Your task to perform on an android device: turn on showing notifications on the lock screen Image 0: 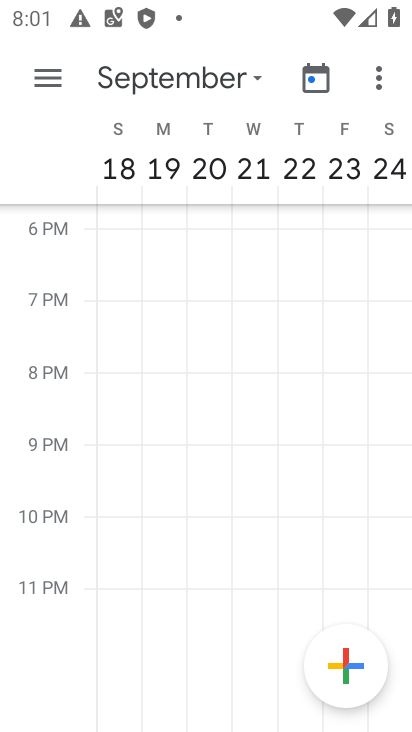
Step 0: press home button
Your task to perform on an android device: turn on showing notifications on the lock screen Image 1: 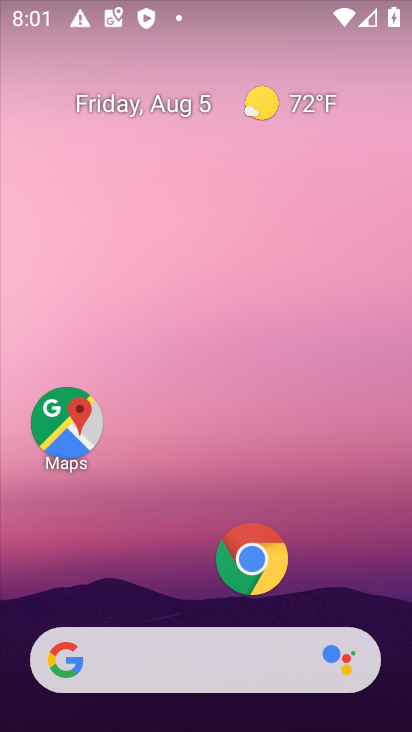
Step 1: drag from (148, 581) to (185, 378)
Your task to perform on an android device: turn on showing notifications on the lock screen Image 2: 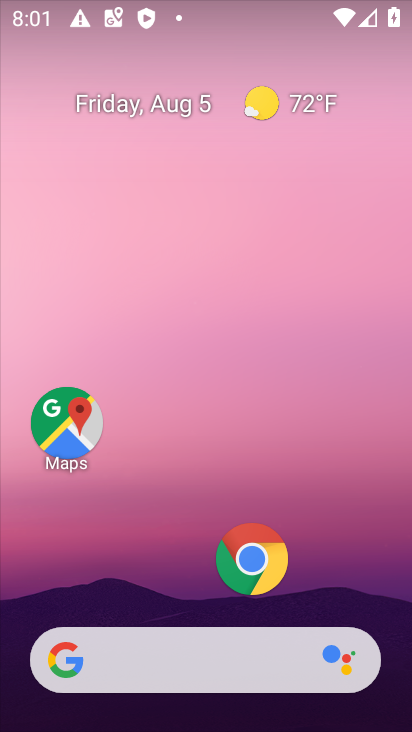
Step 2: drag from (166, 614) to (206, 305)
Your task to perform on an android device: turn on showing notifications on the lock screen Image 3: 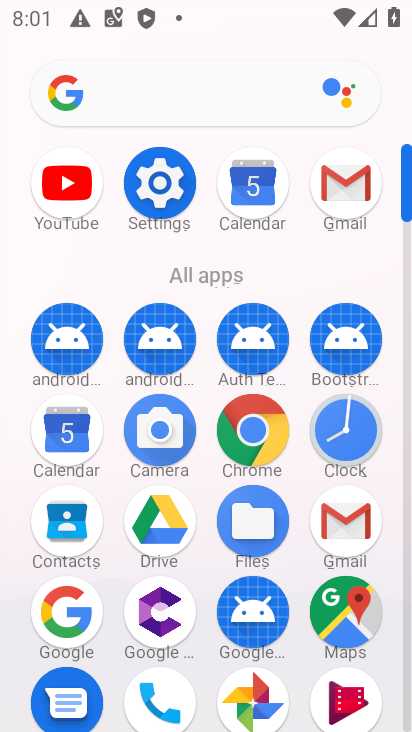
Step 3: click (156, 191)
Your task to perform on an android device: turn on showing notifications on the lock screen Image 4: 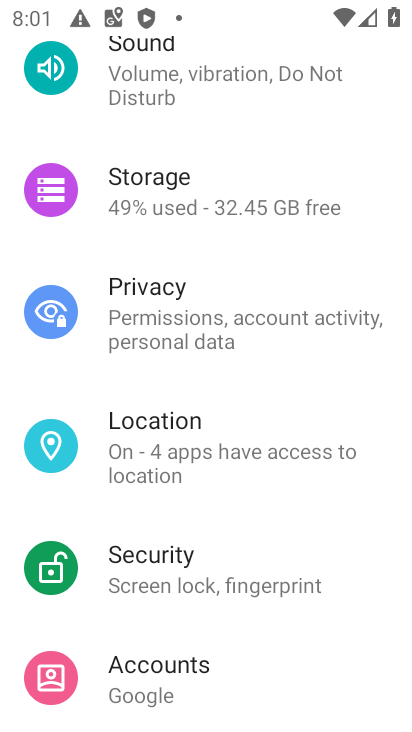
Step 4: drag from (202, 181) to (203, 618)
Your task to perform on an android device: turn on showing notifications on the lock screen Image 5: 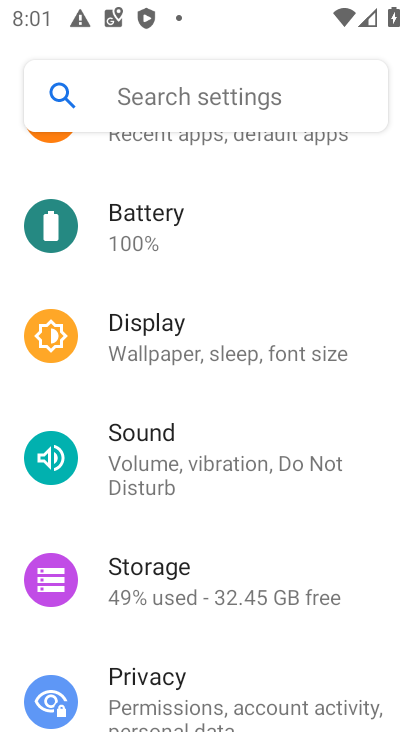
Step 5: drag from (224, 271) to (217, 675)
Your task to perform on an android device: turn on showing notifications on the lock screen Image 6: 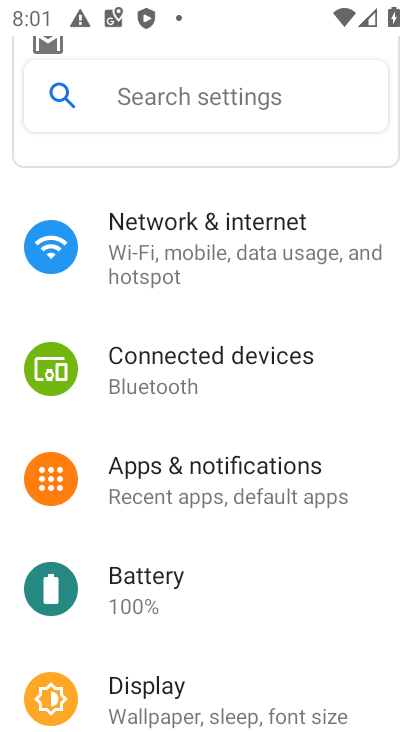
Step 6: click (225, 475)
Your task to perform on an android device: turn on showing notifications on the lock screen Image 7: 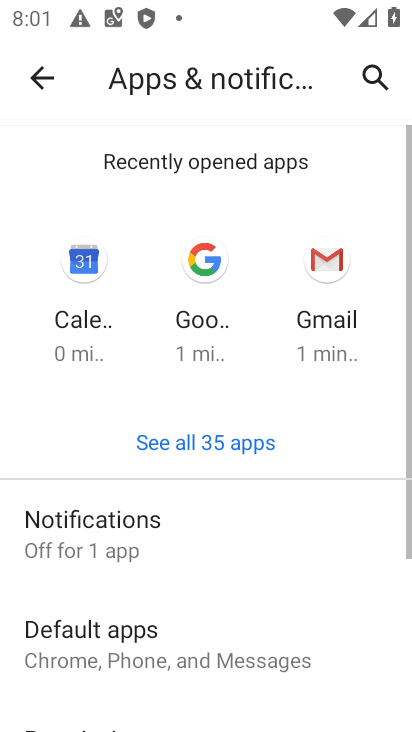
Step 7: click (147, 558)
Your task to perform on an android device: turn on showing notifications on the lock screen Image 8: 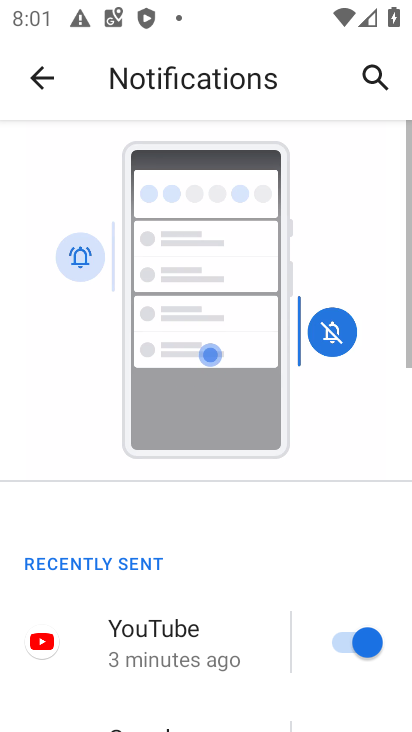
Step 8: drag from (151, 628) to (182, 355)
Your task to perform on an android device: turn on showing notifications on the lock screen Image 9: 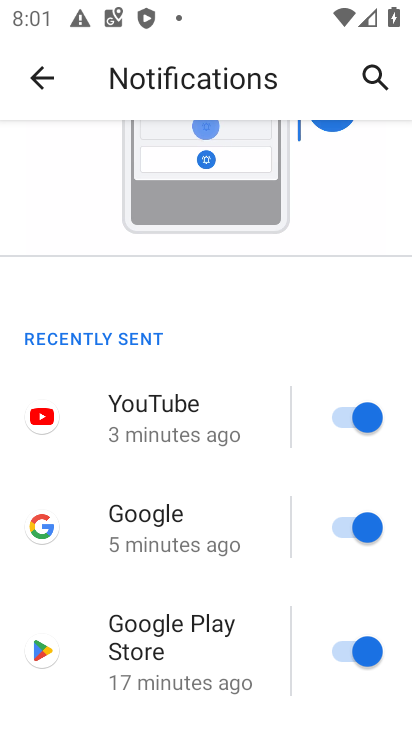
Step 9: drag from (192, 613) to (223, 173)
Your task to perform on an android device: turn on showing notifications on the lock screen Image 10: 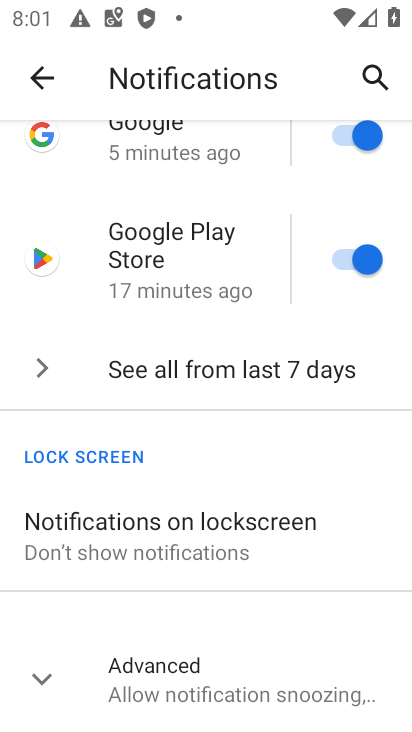
Step 10: click (191, 534)
Your task to perform on an android device: turn on showing notifications on the lock screen Image 11: 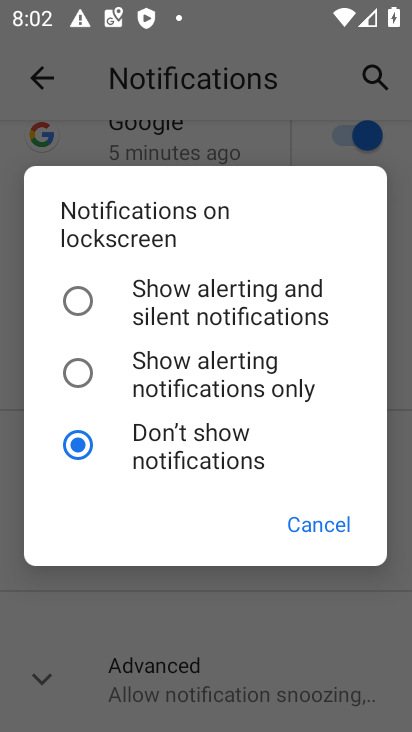
Step 11: click (174, 301)
Your task to perform on an android device: turn on showing notifications on the lock screen Image 12: 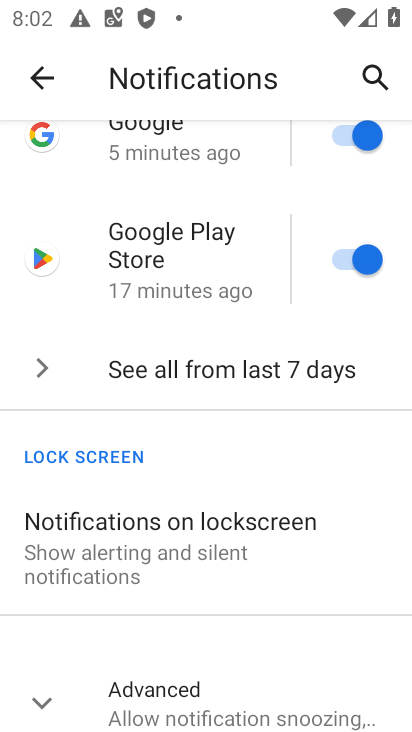
Step 12: task complete